Your task to perform on an android device: open a bookmark in the chrome app Image 0: 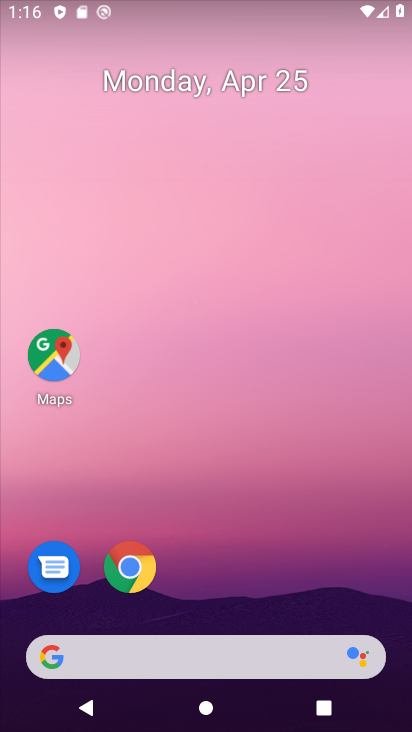
Step 0: click (139, 552)
Your task to perform on an android device: open a bookmark in the chrome app Image 1: 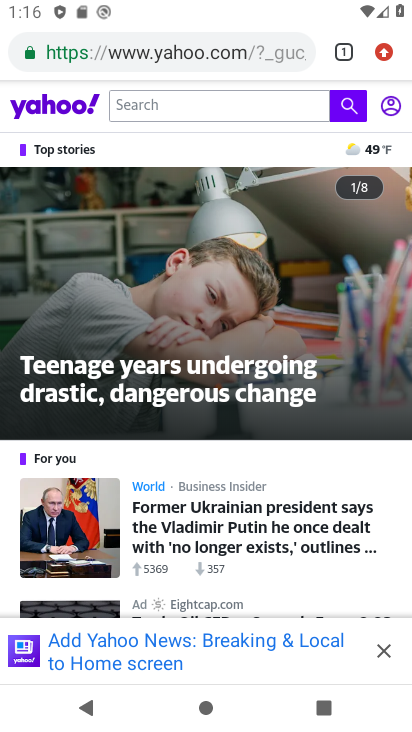
Step 1: click (382, 56)
Your task to perform on an android device: open a bookmark in the chrome app Image 2: 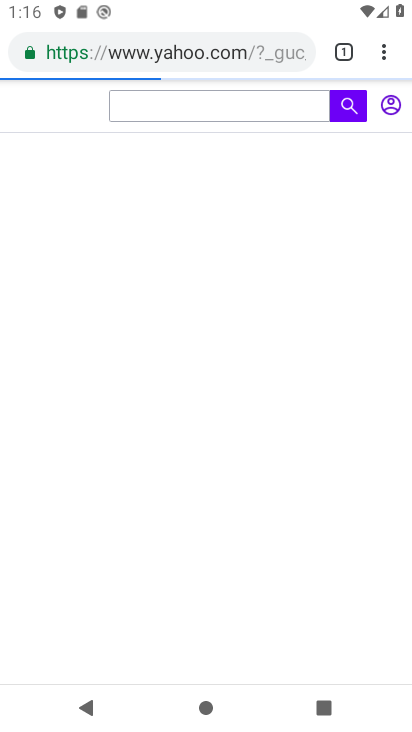
Step 2: click (381, 65)
Your task to perform on an android device: open a bookmark in the chrome app Image 3: 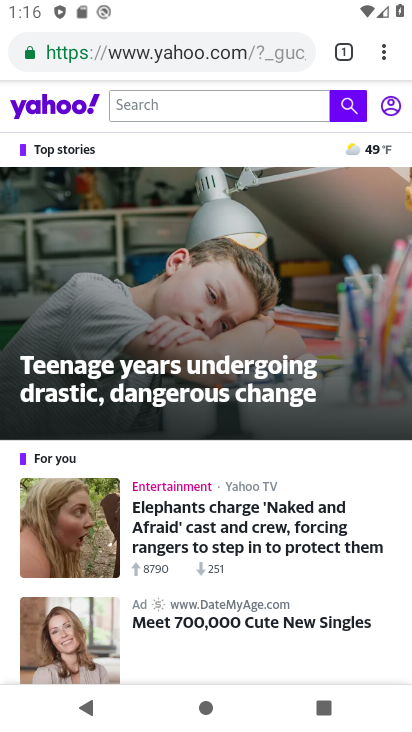
Step 3: click (385, 68)
Your task to perform on an android device: open a bookmark in the chrome app Image 4: 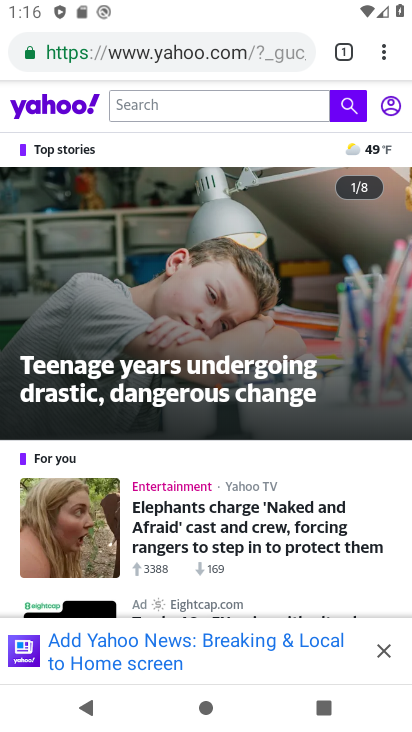
Step 4: click (377, 67)
Your task to perform on an android device: open a bookmark in the chrome app Image 5: 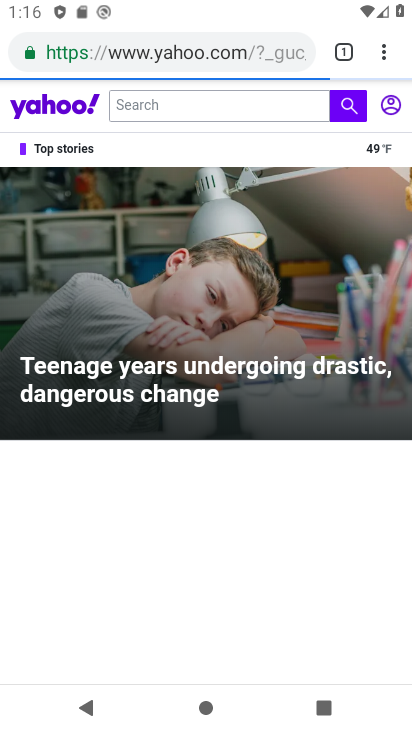
Step 5: click (385, 72)
Your task to perform on an android device: open a bookmark in the chrome app Image 6: 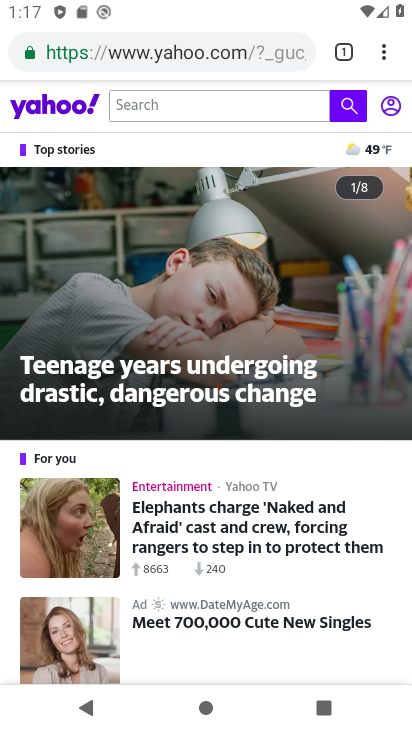
Step 6: click (383, 72)
Your task to perform on an android device: open a bookmark in the chrome app Image 7: 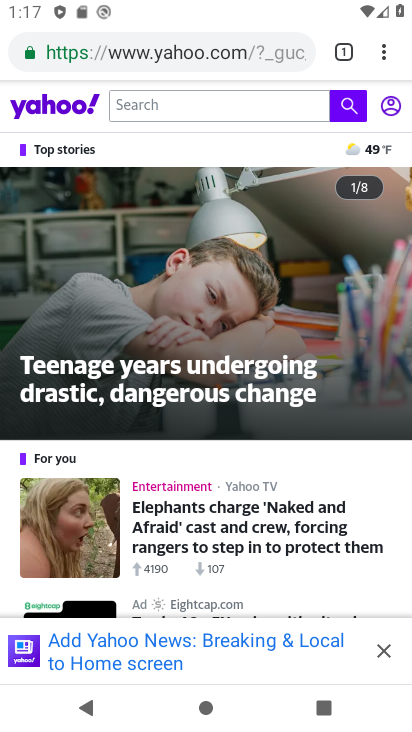
Step 7: click (387, 66)
Your task to perform on an android device: open a bookmark in the chrome app Image 8: 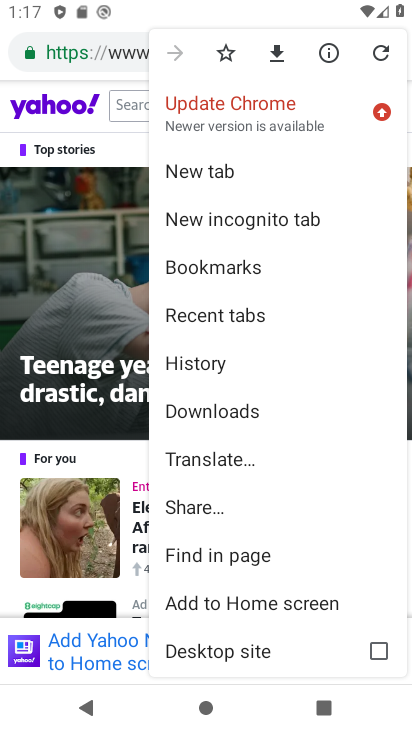
Step 8: click (209, 276)
Your task to perform on an android device: open a bookmark in the chrome app Image 9: 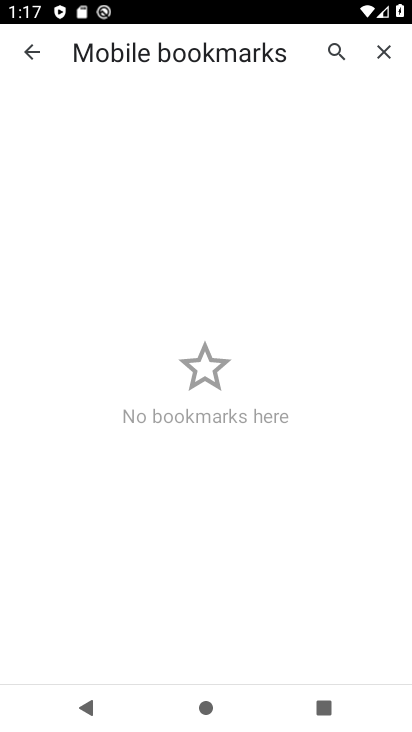
Step 9: task complete